Your task to perform on an android device: Search for the best coffee tables on Crate & Barrel Image 0: 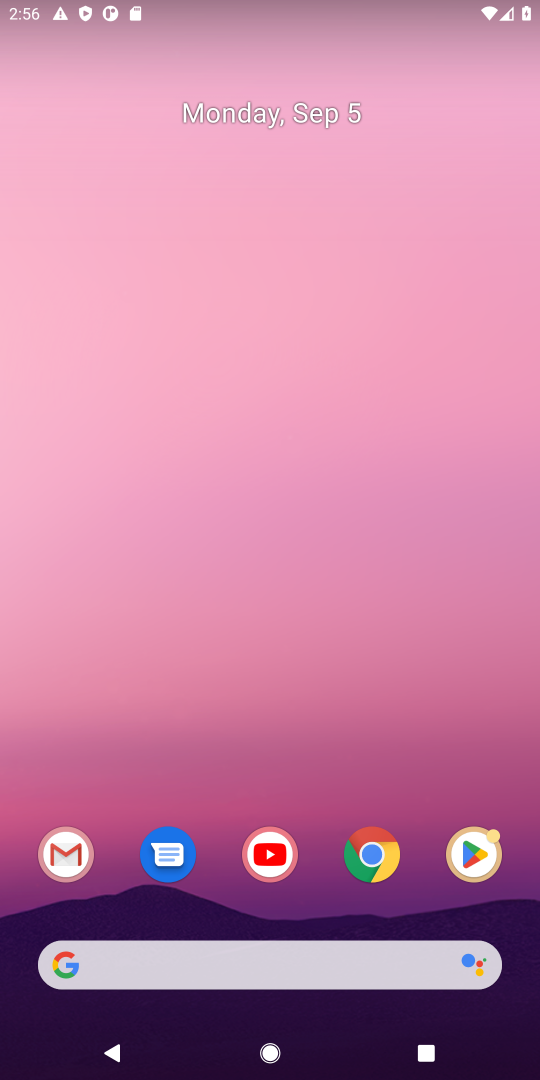
Step 0: click (387, 961)
Your task to perform on an android device: Search for the best coffee tables on Crate & Barrel Image 1: 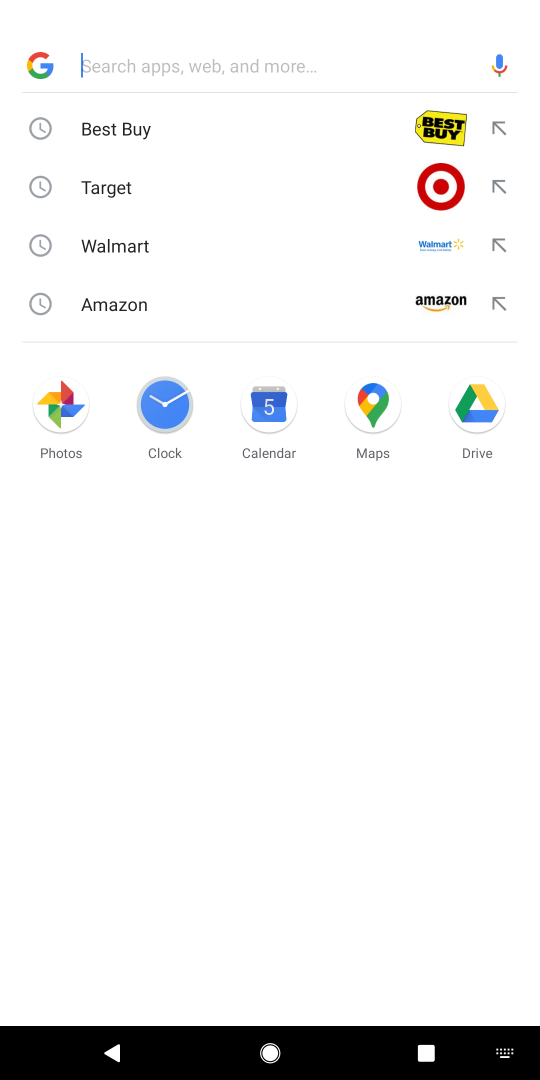
Step 1: press enter
Your task to perform on an android device: Search for the best coffee tables on Crate & Barrel Image 2: 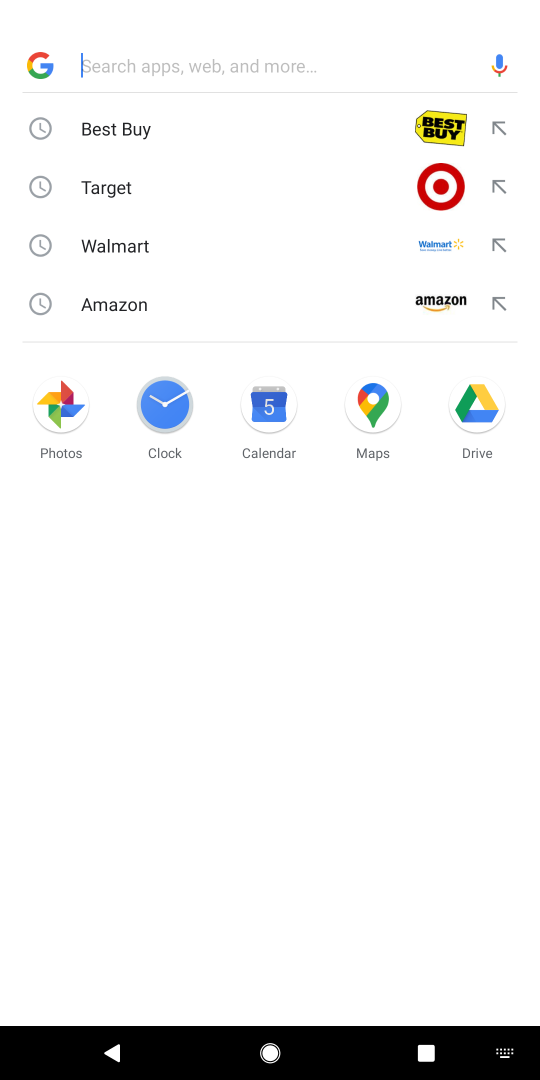
Step 2: type "crate barrel"
Your task to perform on an android device: Search for the best coffee tables on Crate & Barrel Image 3: 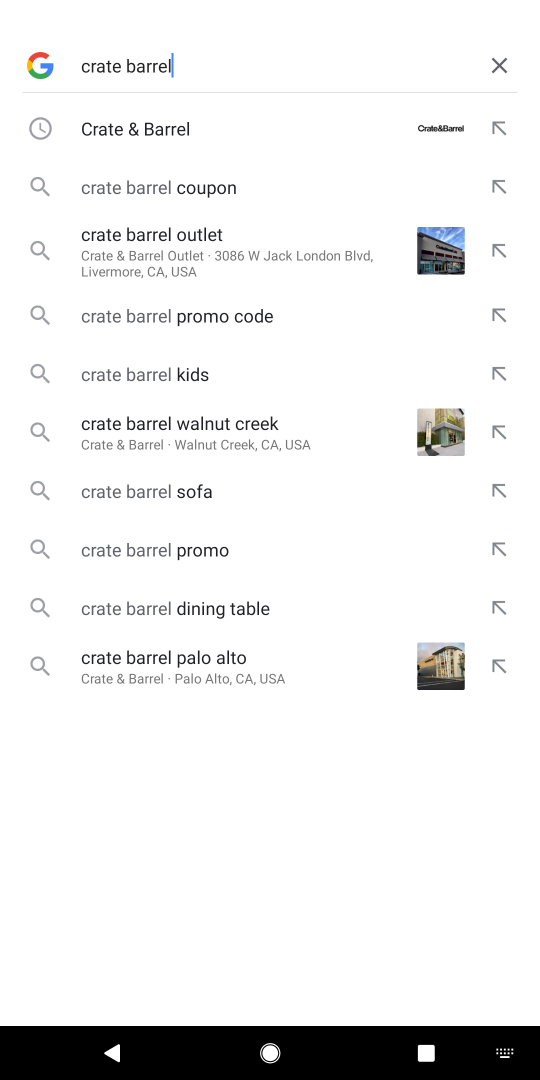
Step 3: click (160, 124)
Your task to perform on an android device: Search for the best coffee tables on Crate & Barrel Image 4: 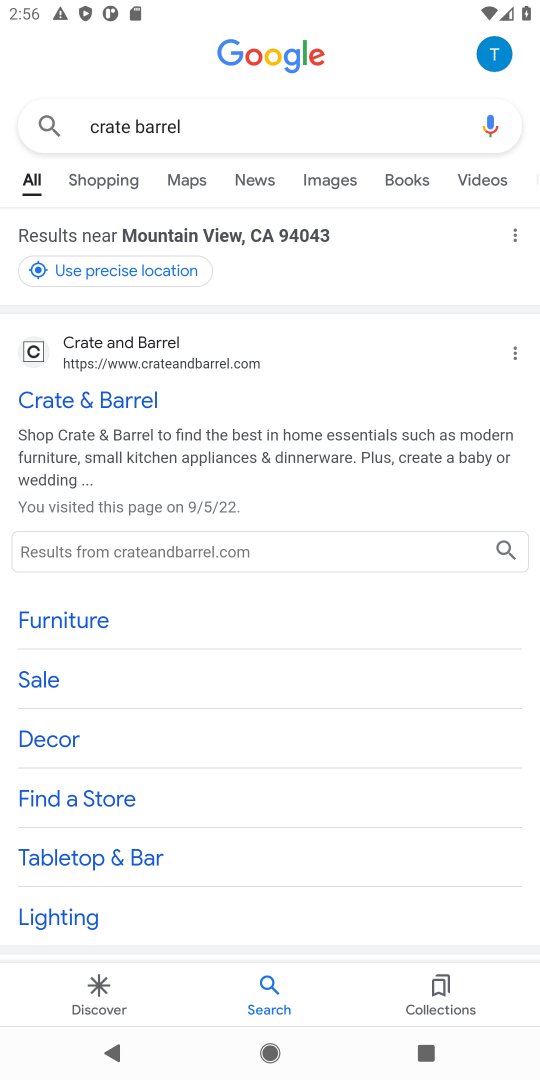
Step 4: click (100, 410)
Your task to perform on an android device: Search for the best coffee tables on Crate & Barrel Image 5: 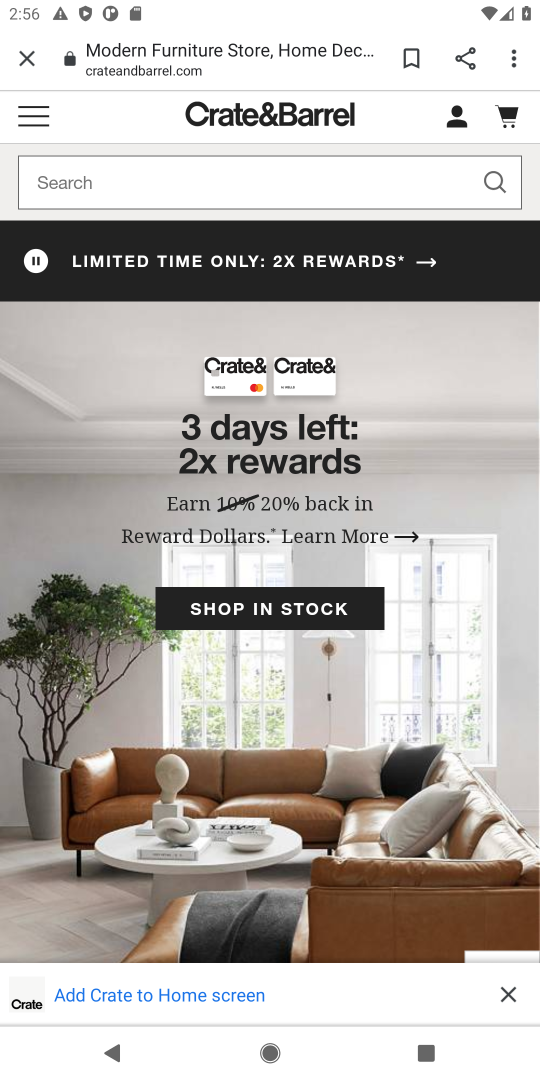
Step 5: click (288, 183)
Your task to perform on an android device: Search for the best coffee tables on Crate & Barrel Image 6: 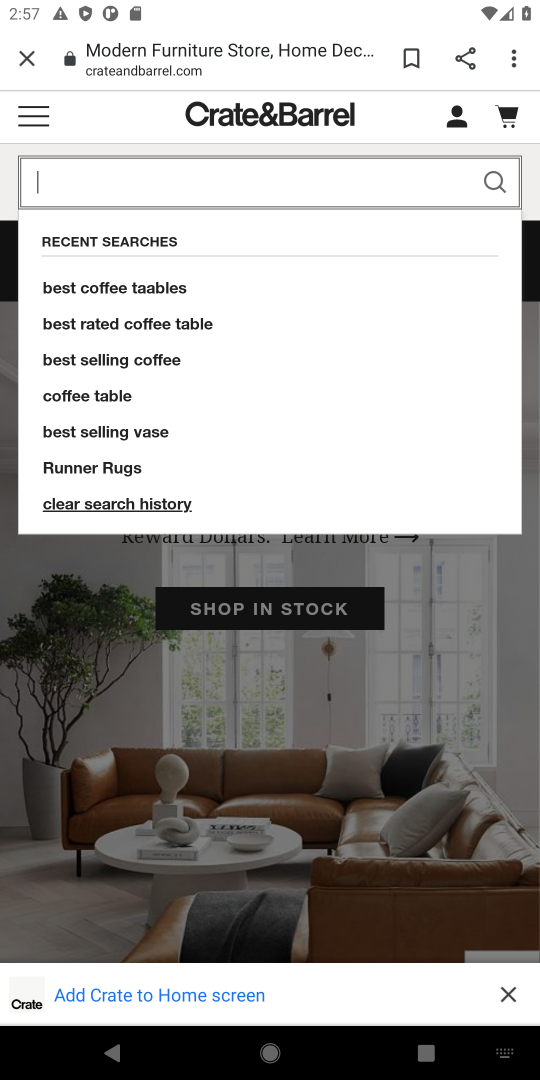
Step 6: press enter
Your task to perform on an android device: Search for the best coffee tables on Crate & Barrel Image 7: 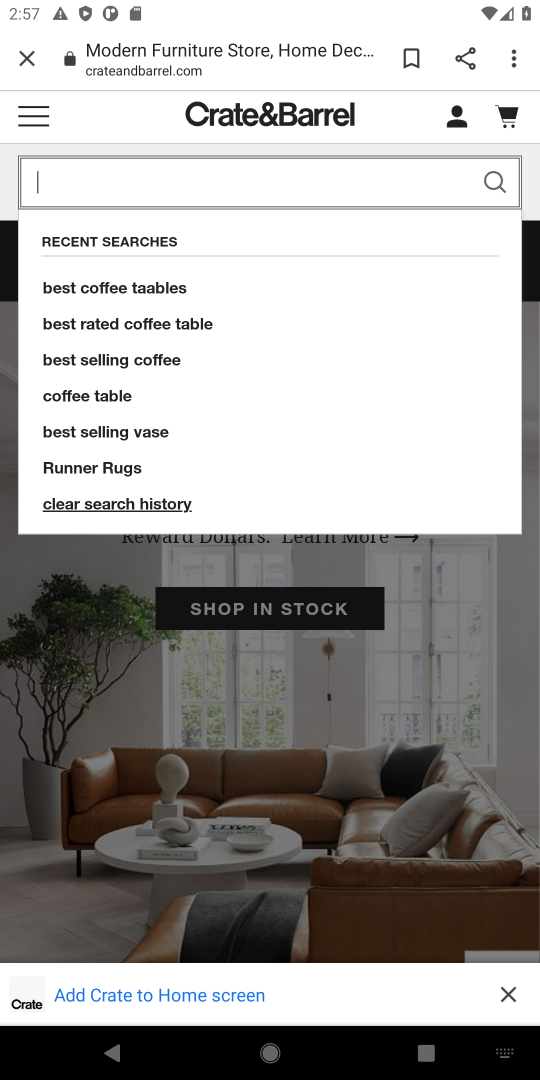
Step 7: type "best coffee tables"
Your task to perform on an android device: Search for the best coffee tables on Crate & Barrel Image 8: 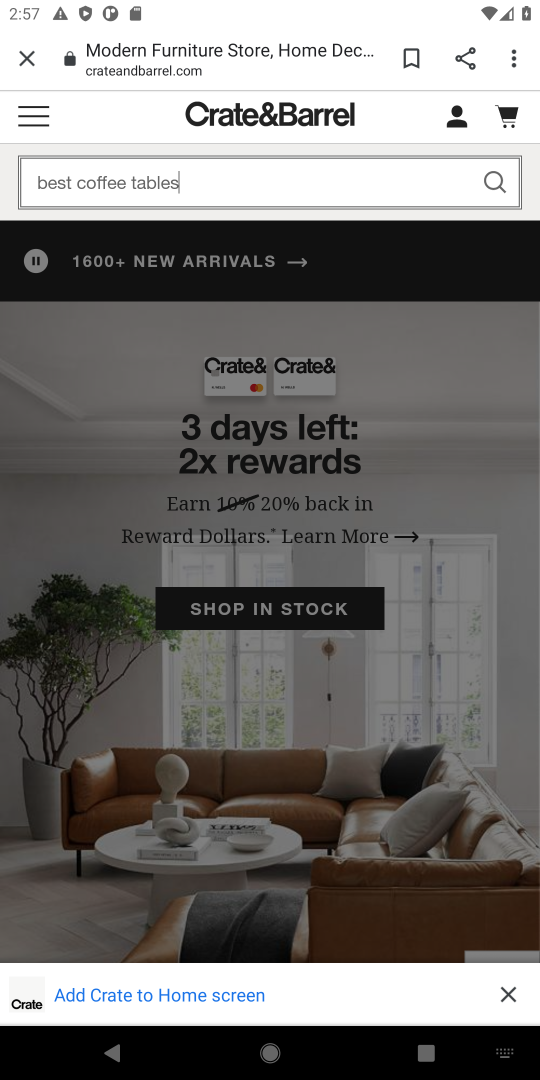
Step 8: click (493, 179)
Your task to perform on an android device: Search for the best coffee tables on Crate & Barrel Image 9: 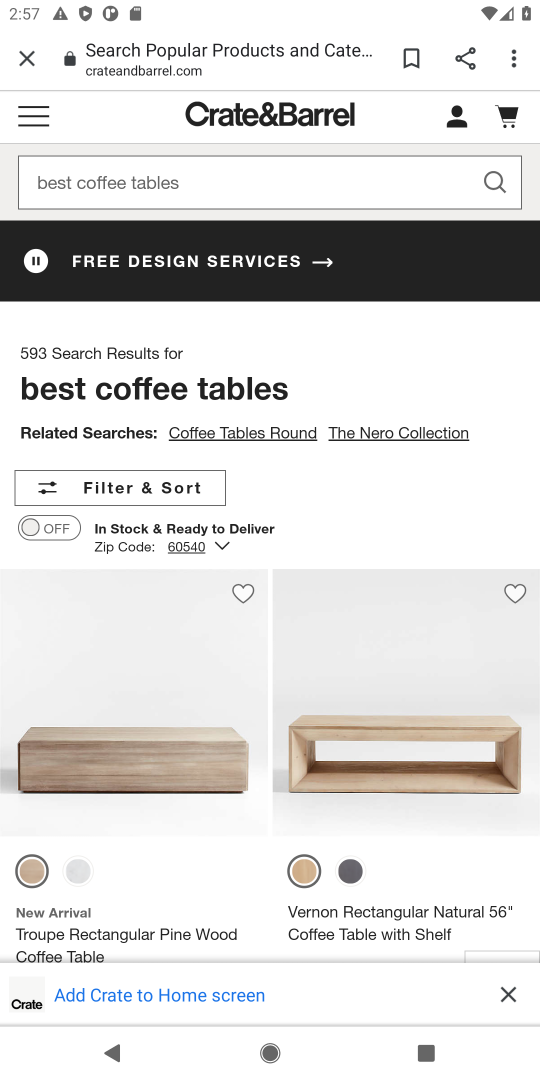
Step 9: task complete